Your task to perform on an android device: change notification settings in the gmail app Image 0: 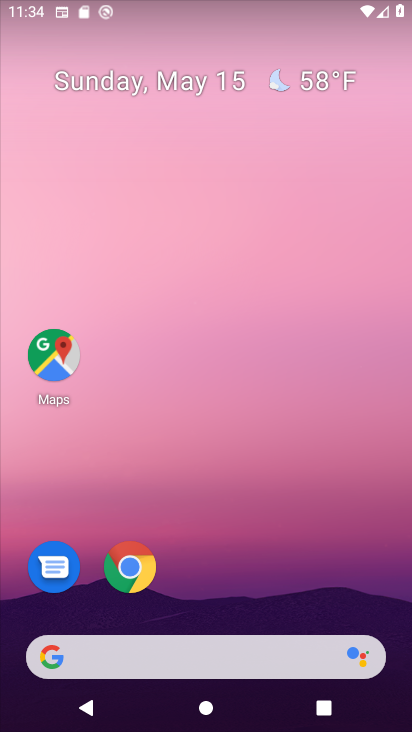
Step 0: drag from (215, 612) to (202, 4)
Your task to perform on an android device: change notification settings in the gmail app Image 1: 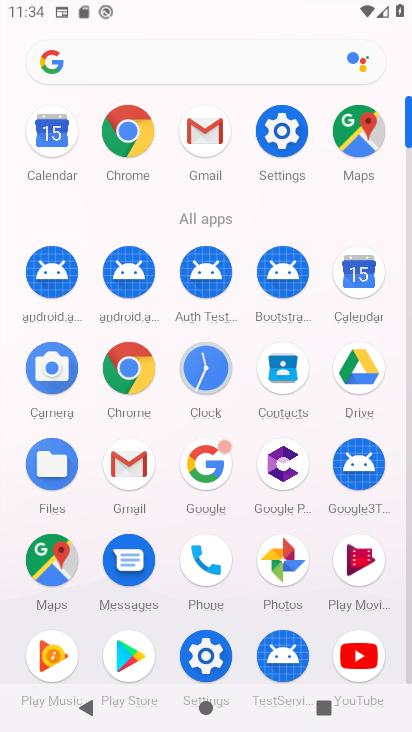
Step 1: click (196, 137)
Your task to perform on an android device: change notification settings in the gmail app Image 2: 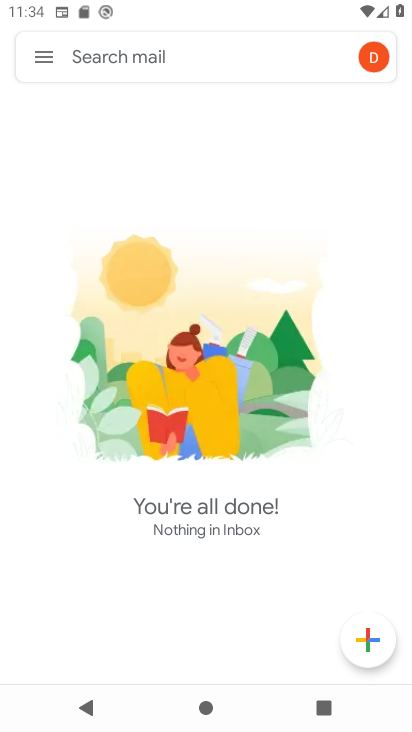
Step 2: click (47, 65)
Your task to perform on an android device: change notification settings in the gmail app Image 3: 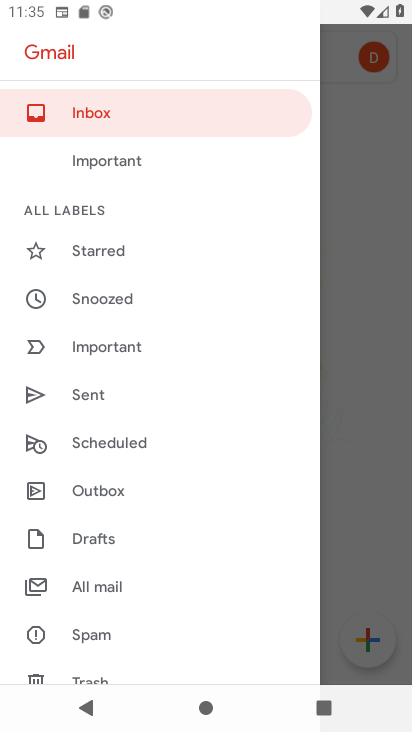
Step 3: drag from (246, 538) to (261, 196)
Your task to perform on an android device: change notification settings in the gmail app Image 4: 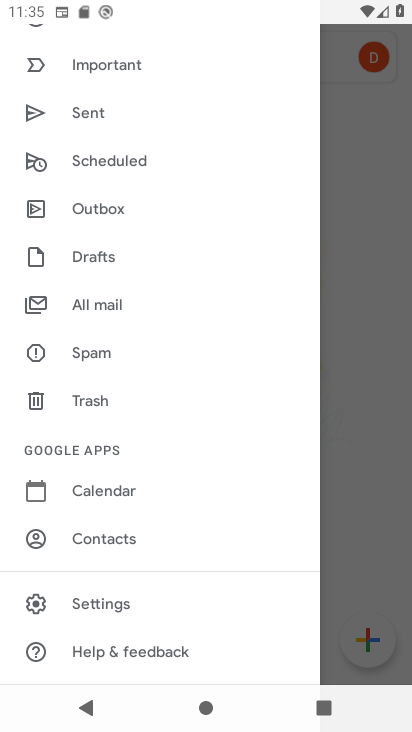
Step 4: drag from (153, 542) to (147, 146)
Your task to perform on an android device: change notification settings in the gmail app Image 5: 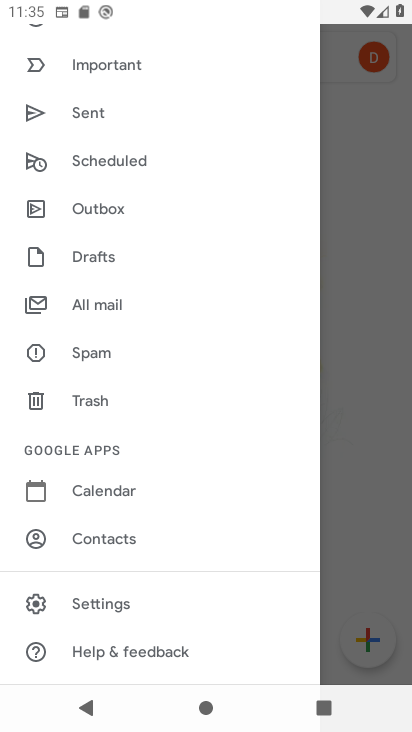
Step 5: click (145, 593)
Your task to perform on an android device: change notification settings in the gmail app Image 6: 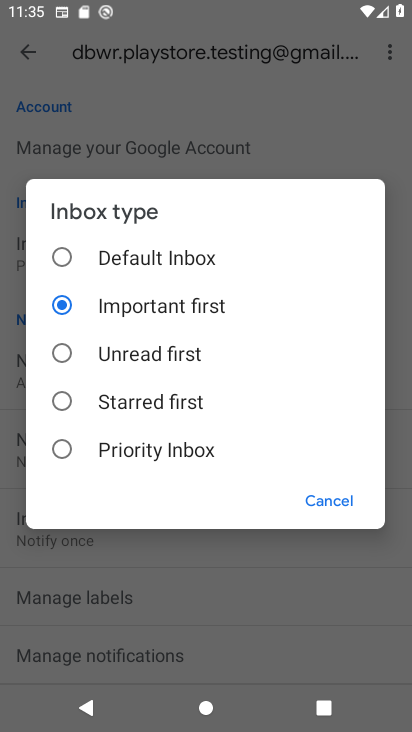
Step 6: click (135, 378)
Your task to perform on an android device: change notification settings in the gmail app Image 7: 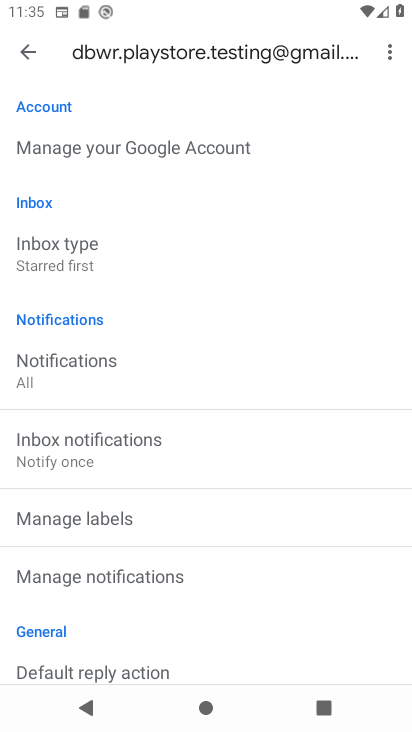
Step 7: click (159, 381)
Your task to perform on an android device: change notification settings in the gmail app Image 8: 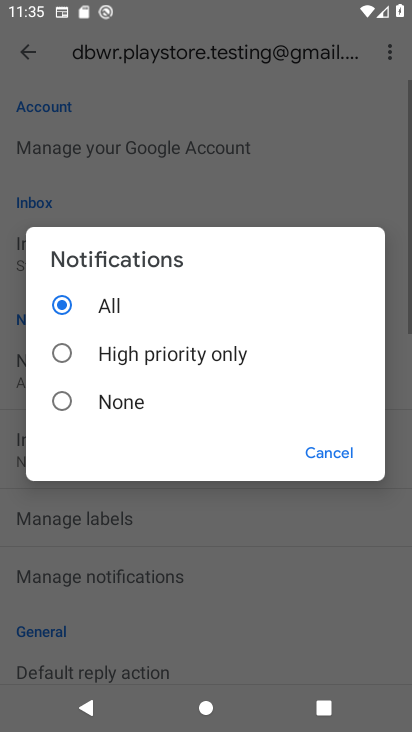
Step 8: click (159, 381)
Your task to perform on an android device: change notification settings in the gmail app Image 9: 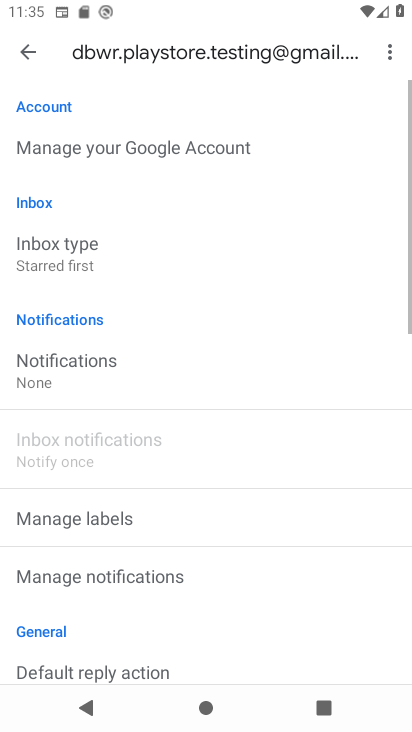
Step 9: click (180, 368)
Your task to perform on an android device: change notification settings in the gmail app Image 10: 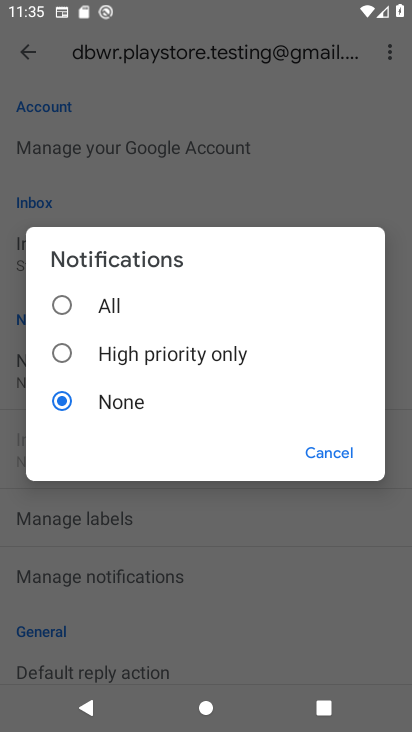
Step 10: task complete